Your task to perform on an android device: turn on notifications settings in the gmail app Image 0: 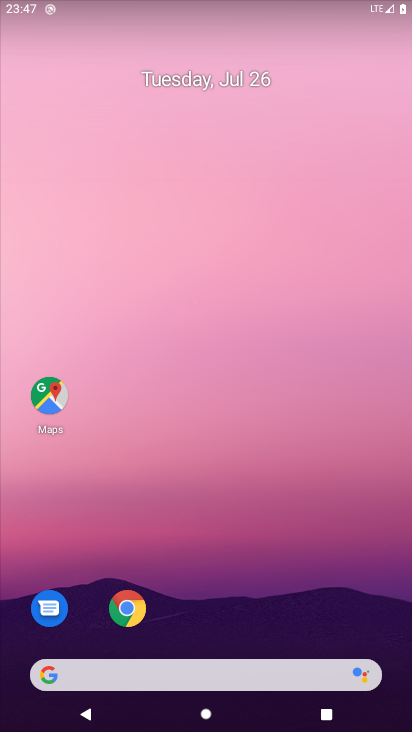
Step 0: press home button
Your task to perform on an android device: turn on notifications settings in the gmail app Image 1: 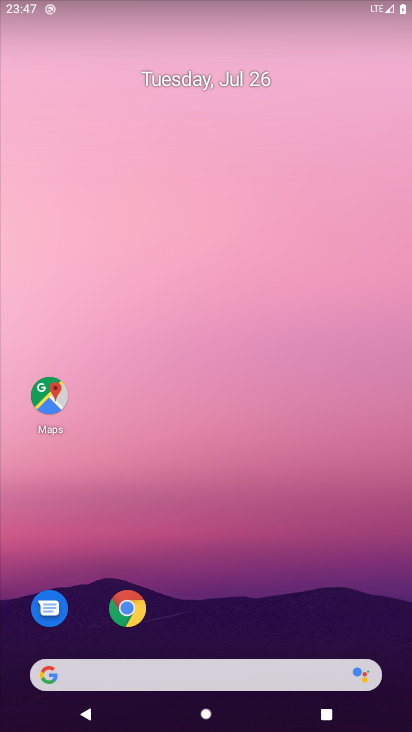
Step 1: drag from (325, 571) to (389, 164)
Your task to perform on an android device: turn on notifications settings in the gmail app Image 2: 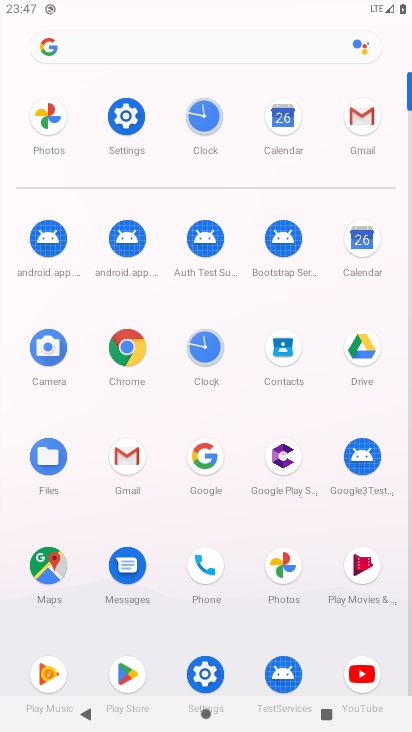
Step 2: click (121, 111)
Your task to perform on an android device: turn on notifications settings in the gmail app Image 3: 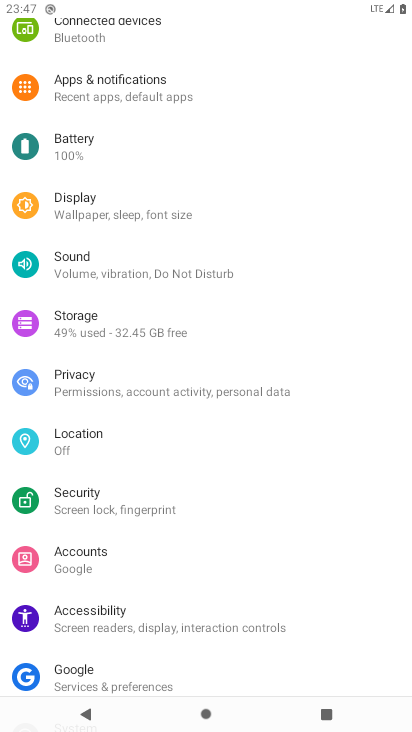
Step 3: click (160, 86)
Your task to perform on an android device: turn on notifications settings in the gmail app Image 4: 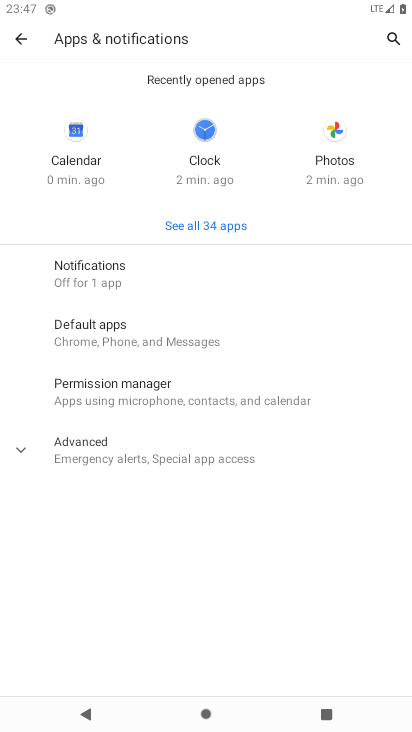
Step 4: click (144, 270)
Your task to perform on an android device: turn on notifications settings in the gmail app Image 5: 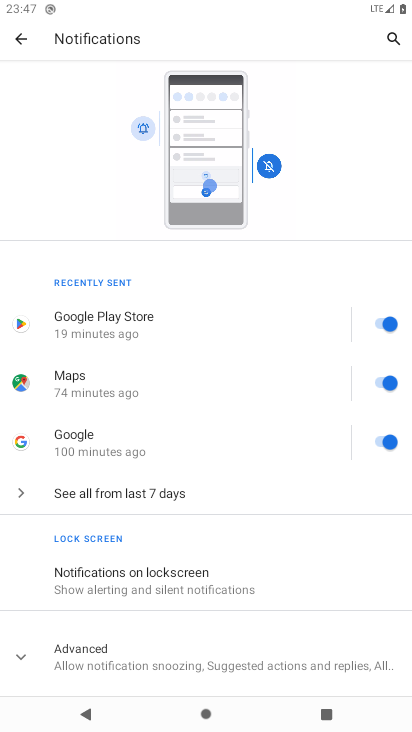
Step 5: drag from (146, 531) to (133, 203)
Your task to perform on an android device: turn on notifications settings in the gmail app Image 6: 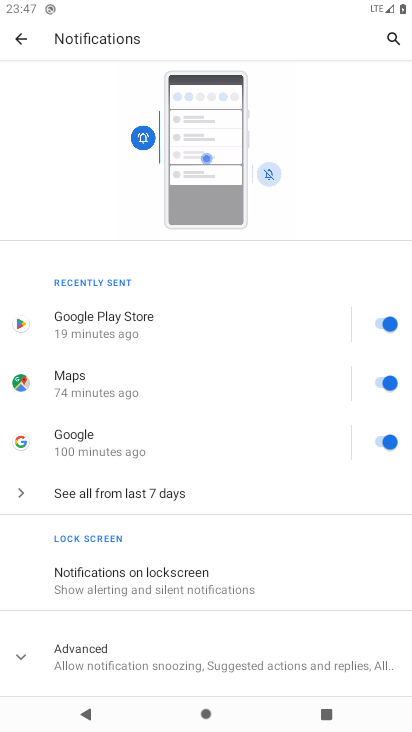
Step 6: click (269, 175)
Your task to perform on an android device: turn on notifications settings in the gmail app Image 7: 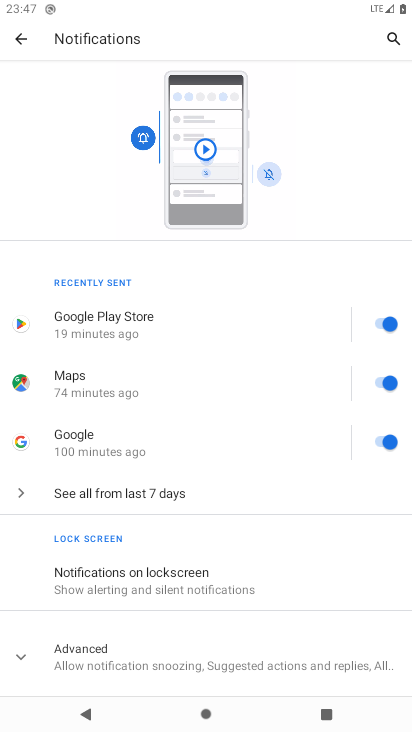
Step 7: click (272, 175)
Your task to perform on an android device: turn on notifications settings in the gmail app Image 8: 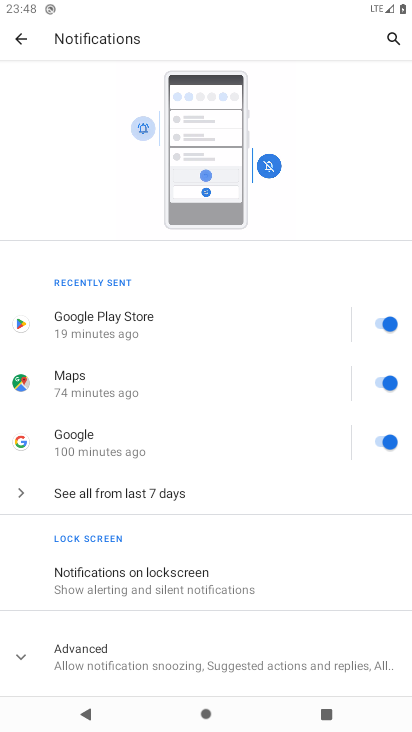
Step 8: task complete